Your task to perform on an android device: manage bookmarks in the chrome app Image 0: 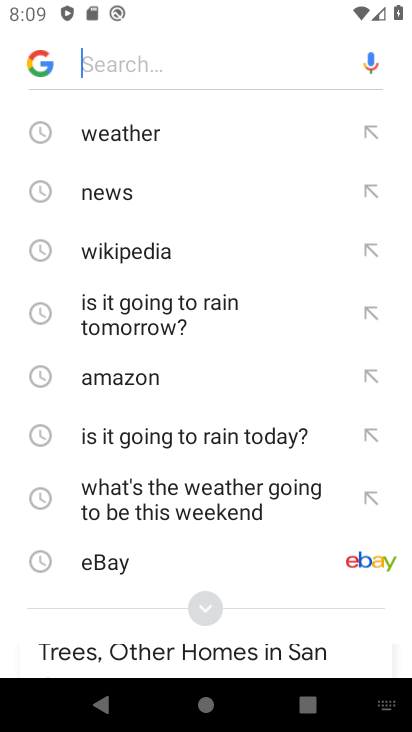
Step 0: press home button
Your task to perform on an android device: manage bookmarks in the chrome app Image 1: 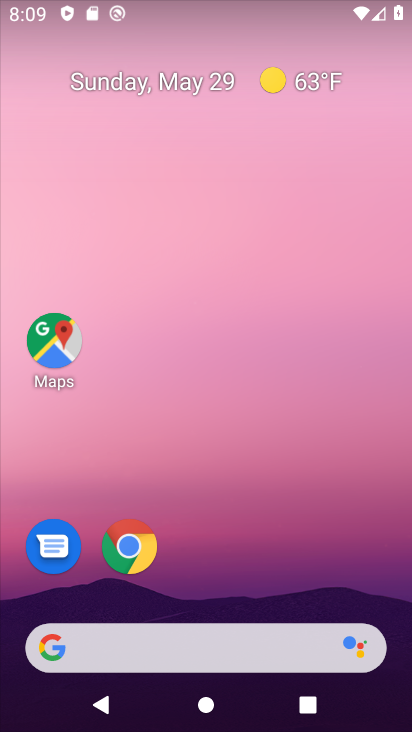
Step 1: click (135, 547)
Your task to perform on an android device: manage bookmarks in the chrome app Image 2: 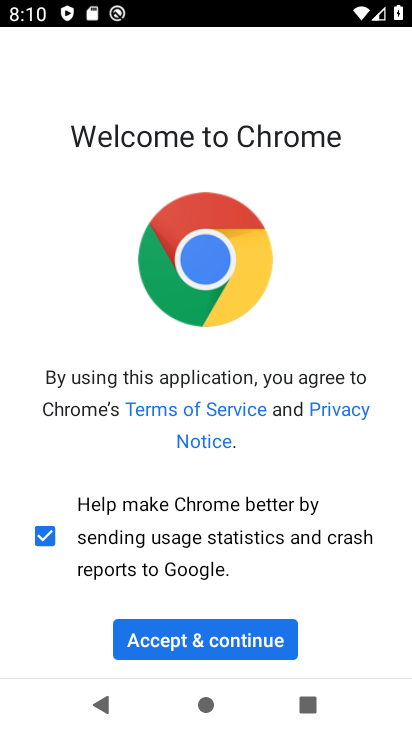
Step 2: click (234, 645)
Your task to perform on an android device: manage bookmarks in the chrome app Image 3: 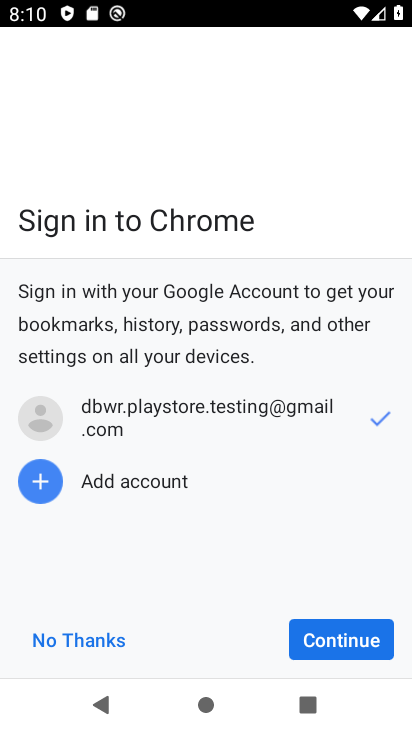
Step 3: click (313, 639)
Your task to perform on an android device: manage bookmarks in the chrome app Image 4: 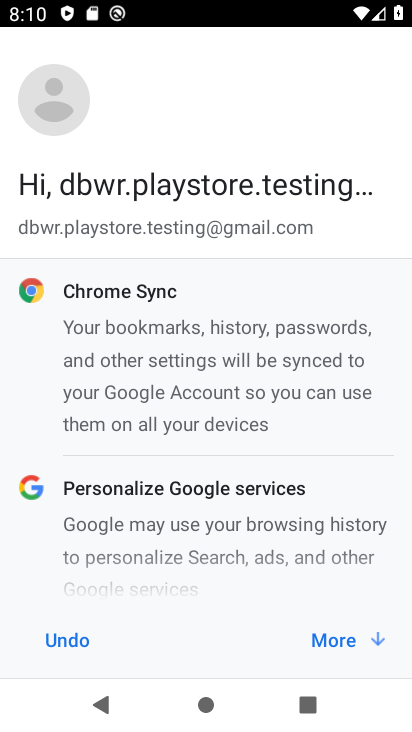
Step 4: click (327, 644)
Your task to perform on an android device: manage bookmarks in the chrome app Image 5: 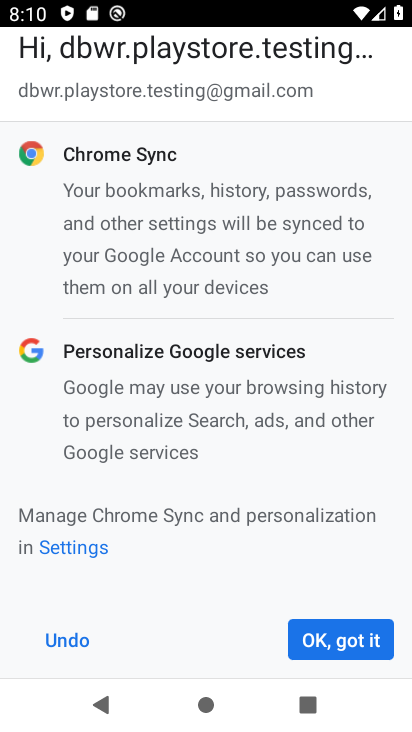
Step 5: click (327, 644)
Your task to perform on an android device: manage bookmarks in the chrome app Image 6: 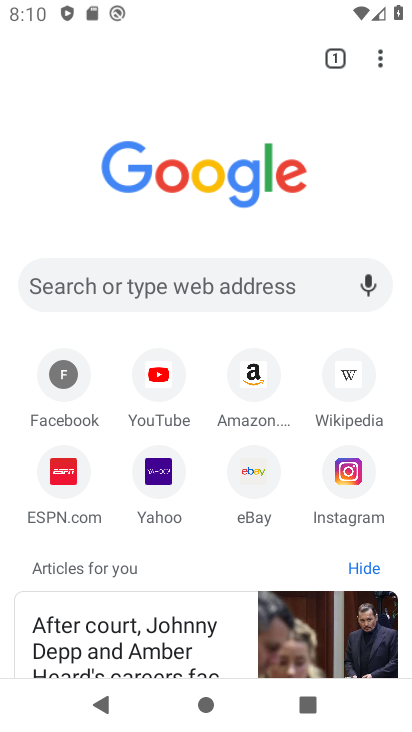
Step 6: drag from (380, 54) to (238, 230)
Your task to perform on an android device: manage bookmarks in the chrome app Image 7: 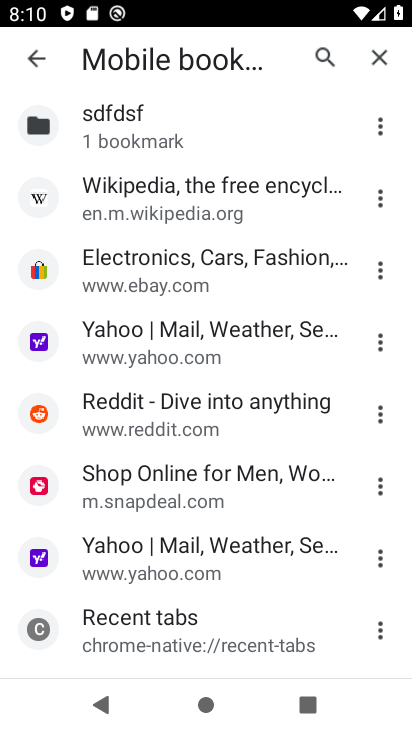
Step 7: click (378, 201)
Your task to perform on an android device: manage bookmarks in the chrome app Image 8: 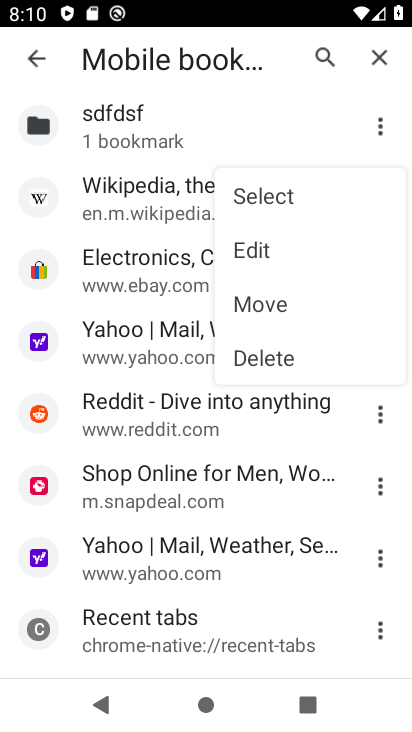
Step 8: click (266, 302)
Your task to perform on an android device: manage bookmarks in the chrome app Image 9: 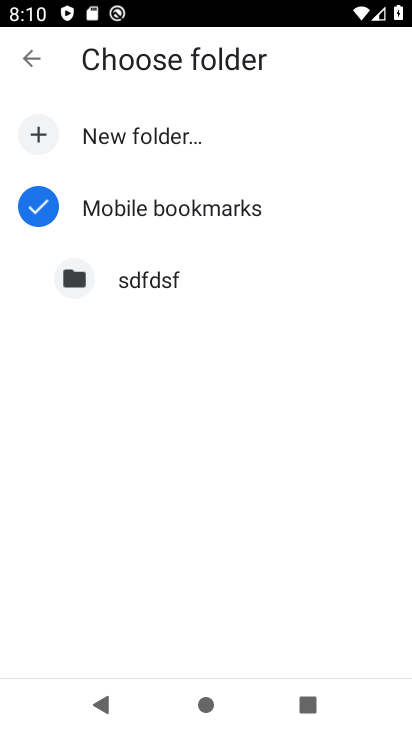
Step 9: click (82, 272)
Your task to perform on an android device: manage bookmarks in the chrome app Image 10: 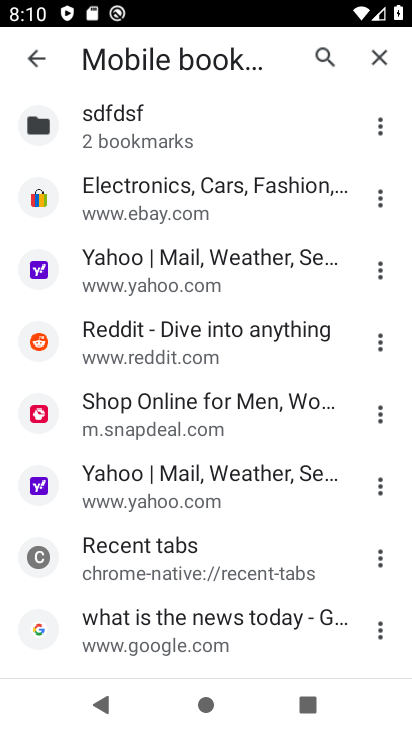
Step 10: task complete